Your task to perform on an android device: turn on priority inbox in the gmail app Image 0: 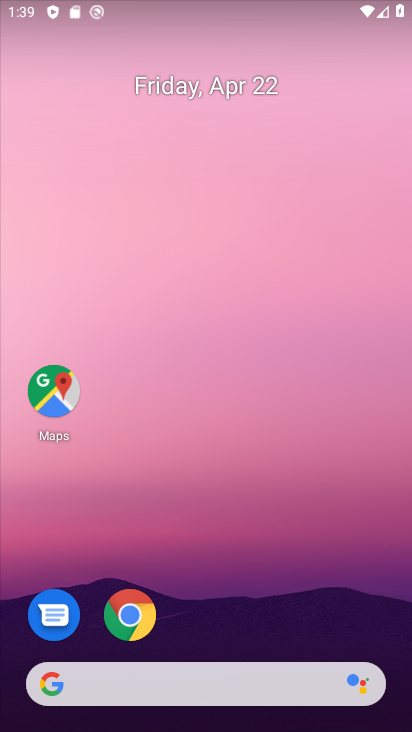
Step 0: drag from (175, 665) to (285, 124)
Your task to perform on an android device: turn on priority inbox in the gmail app Image 1: 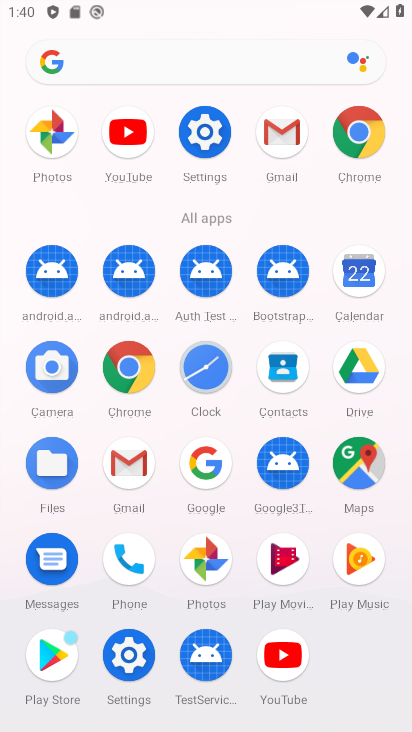
Step 1: click (130, 470)
Your task to perform on an android device: turn on priority inbox in the gmail app Image 2: 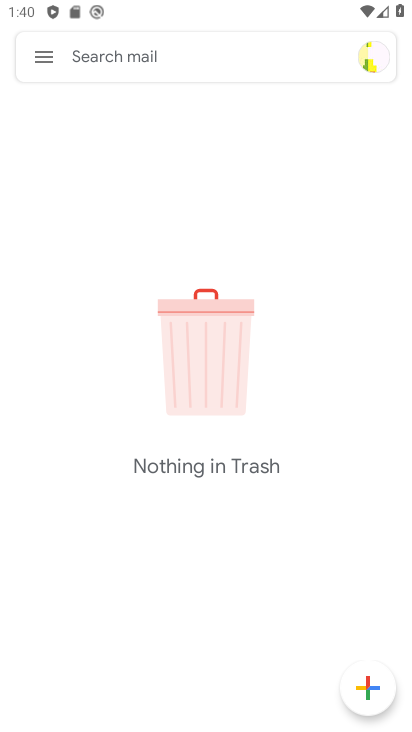
Step 2: click (43, 55)
Your task to perform on an android device: turn on priority inbox in the gmail app Image 3: 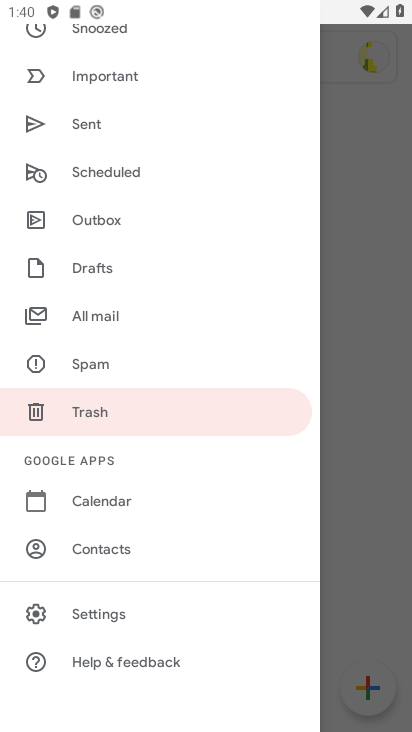
Step 3: drag from (116, 592) to (197, 382)
Your task to perform on an android device: turn on priority inbox in the gmail app Image 4: 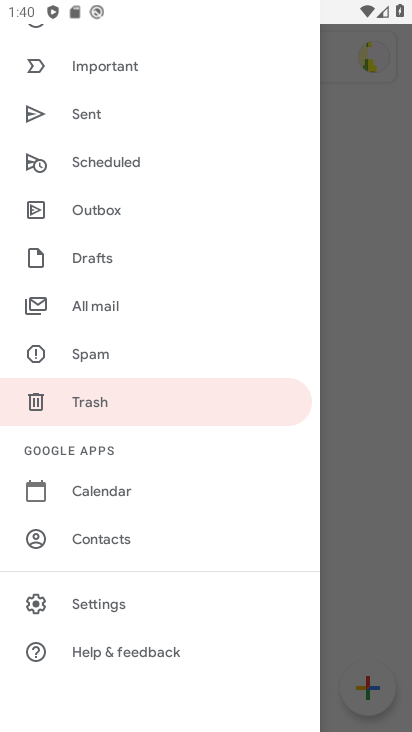
Step 4: click (138, 597)
Your task to perform on an android device: turn on priority inbox in the gmail app Image 5: 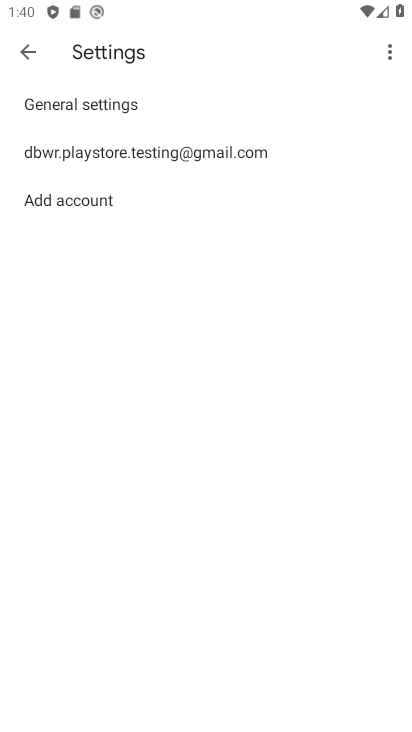
Step 5: click (207, 149)
Your task to perform on an android device: turn on priority inbox in the gmail app Image 6: 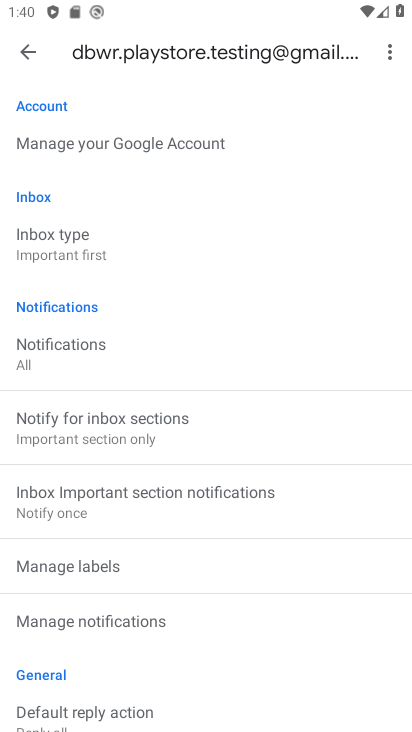
Step 6: click (144, 253)
Your task to perform on an android device: turn on priority inbox in the gmail app Image 7: 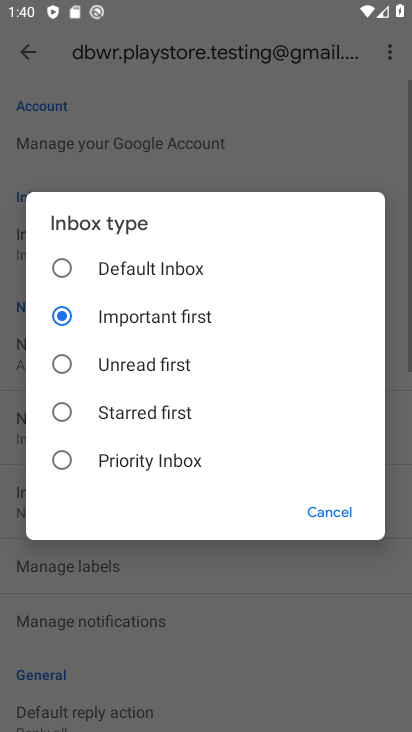
Step 7: click (158, 463)
Your task to perform on an android device: turn on priority inbox in the gmail app Image 8: 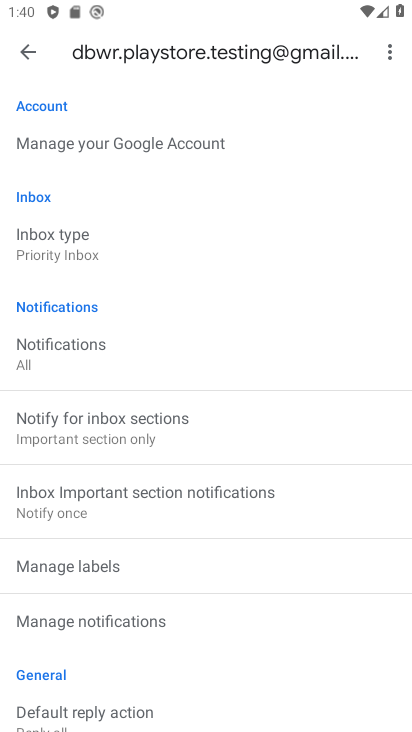
Step 8: task complete